Your task to perform on an android device: When is my next meeting? Image 0: 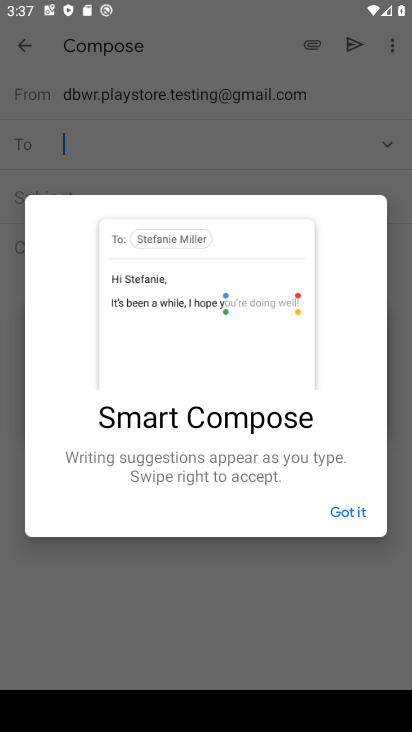
Step 0: press home button
Your task to perform on an android device: When is my next meeting? Image 1: 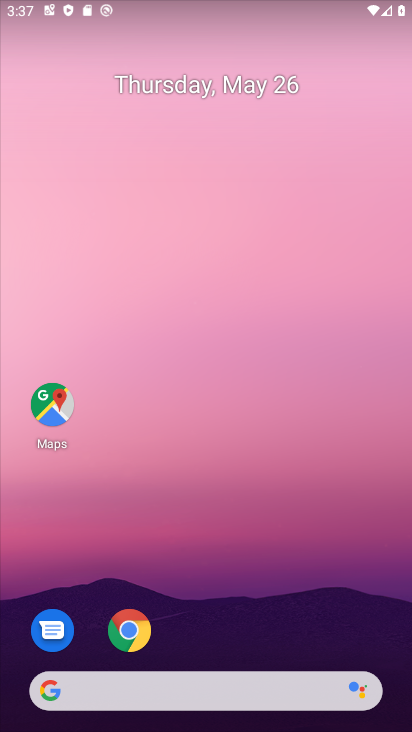
Step 1: drag from (259, 595) to (314, 0)
Your task to perform on an android device: When is my next meeting? Image 2: 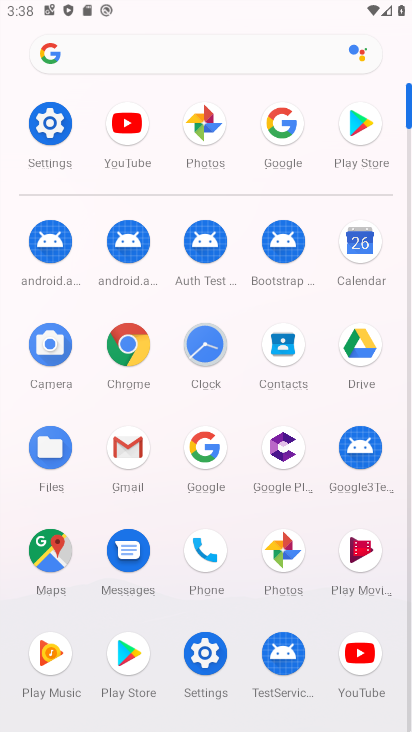
Step 2: click (360, 243)
Your task to perform on an android device: When is my next meeting? Image 3: 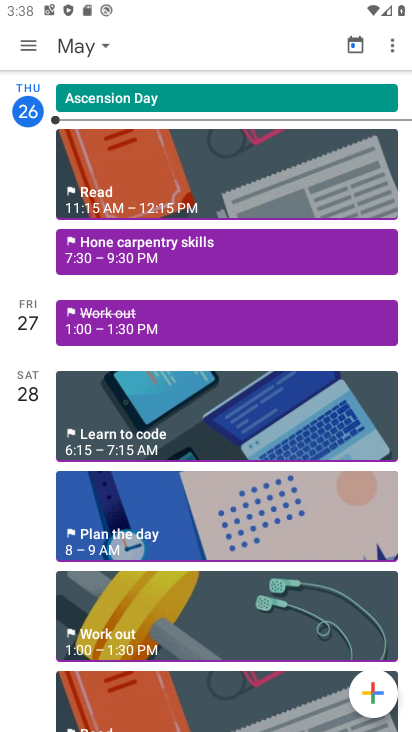
Step 3: click (107, 45)
Your task to perform on an android device: When is my next meeting? Image 4: 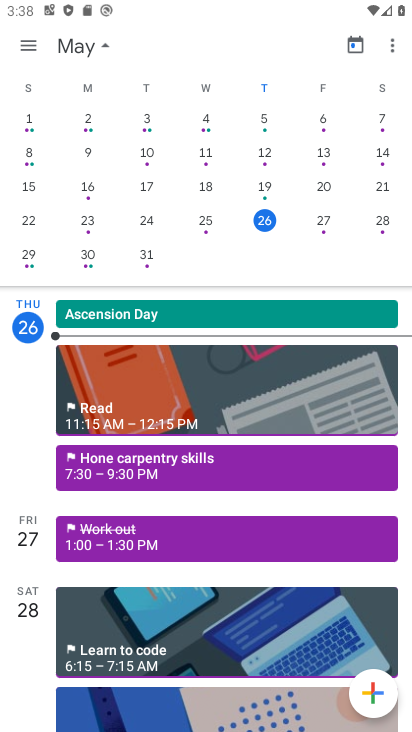
Step 4: click (325, 221)
Your task to perform on an android device: When is my next meeting? Image 5: 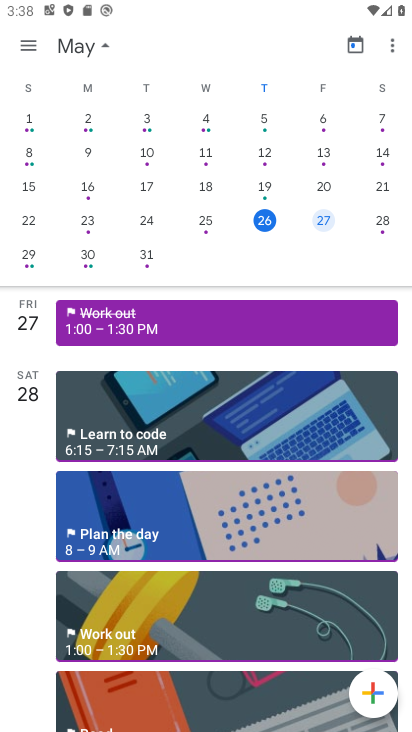
Step 5: click (24, 44)
Your task to perform on an android device: When is my next meeting? Image 6: 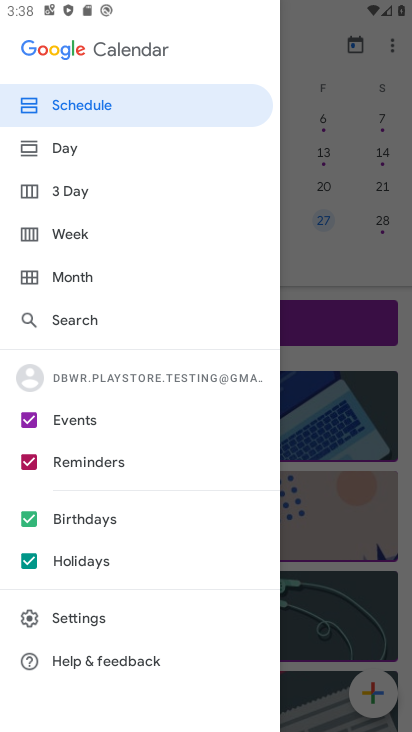
Step 6: click (79, 101)
Your task to perform on an android device: When is my next meeting? Image 7: 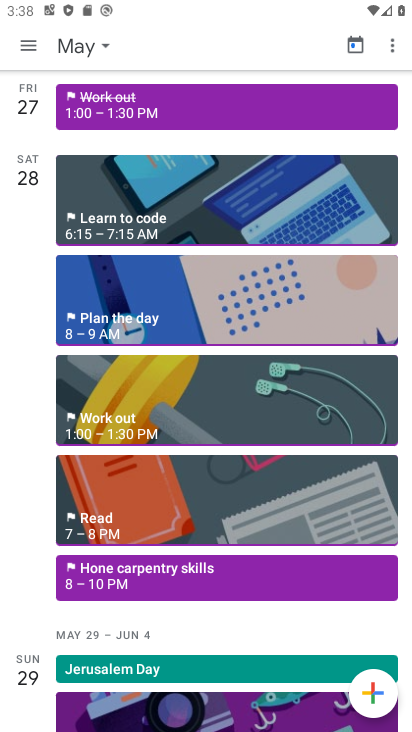
Step 7: task complete